Your task to perform on an android device: Do I have any events tomorrow? Image 0: 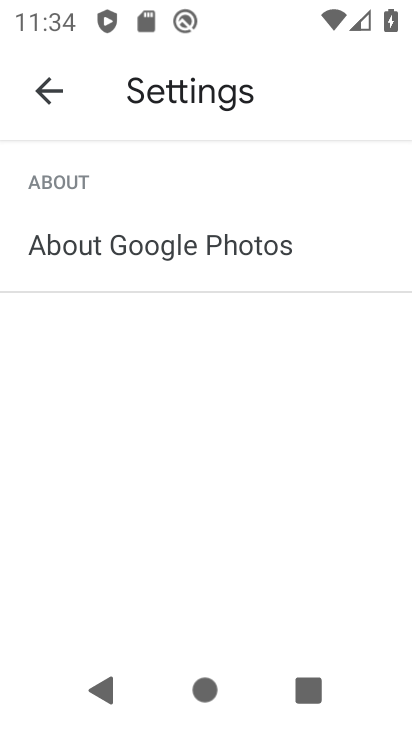
Step 0: press home button
Your task to perform on an android device: Do I have any events tomorrow? Image 1: 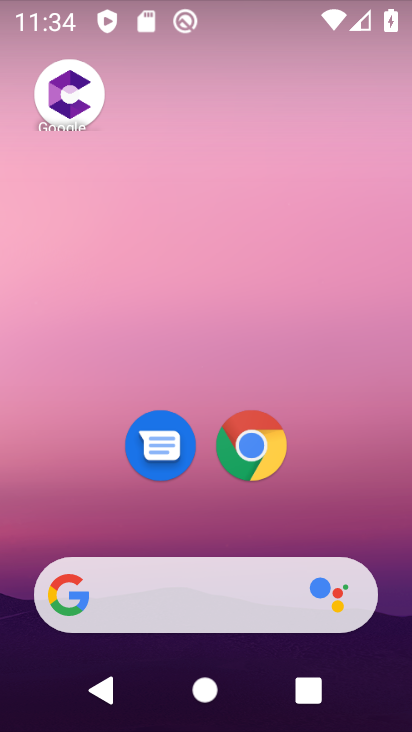
Step 1: drag from (211, 532) to (245, 3)
Your task to perform on an android device: Do I have any events tomorrow? Image 2: 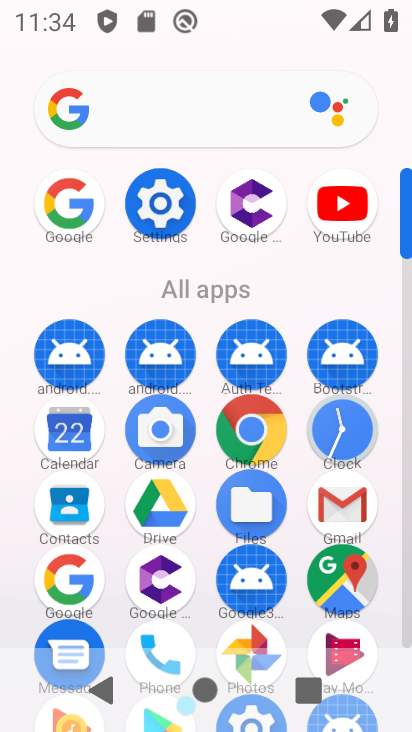
Step 2: click (66, 427)
Your task to perform on an android device: Do I have any events tomorrow? Image 3: 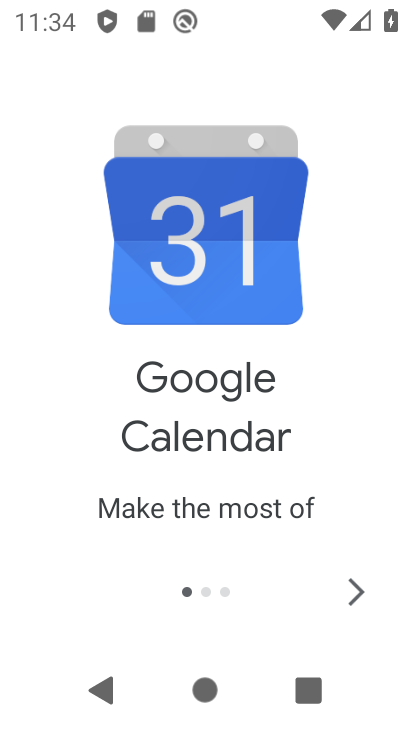
Step 3: click (347, 584)
Your task to perform on an android device: Do I have any events tomorrow? Image 4: 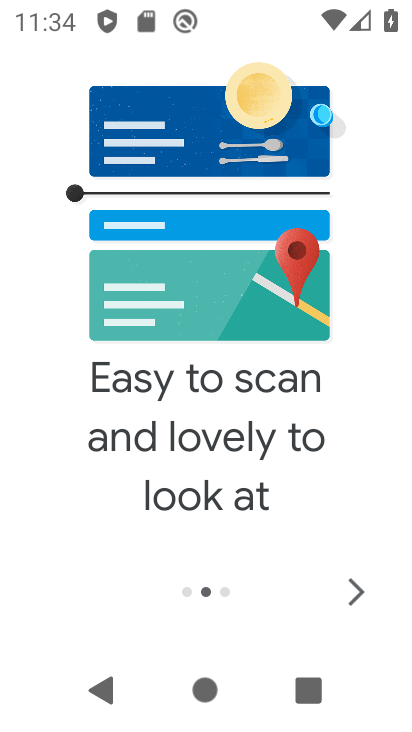
Step 4: click (347, 584)
Your task to perform on an android device: Do I have any events tomorrow? Image 5: 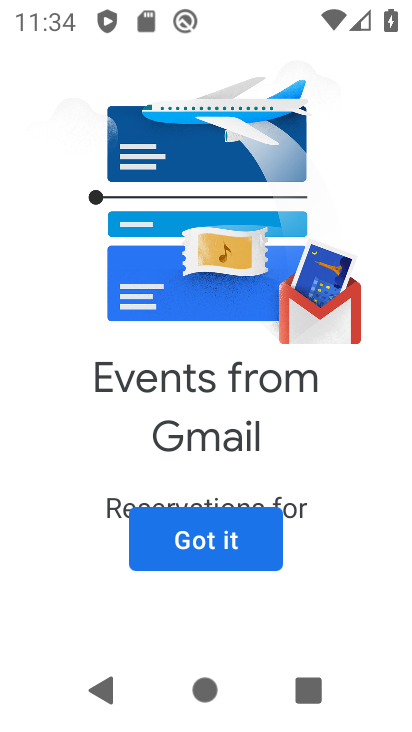
Step 5: click (209, 530)
Your task to perform on an android device: Do I have any events tomorrow? Image 6: 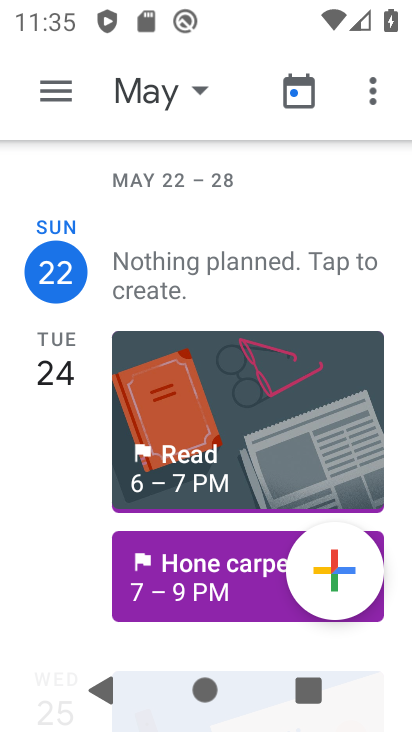
Step 6: click (204, 88)
Your task to perform on an android device: Do I have any events tomorrow? Image 7: 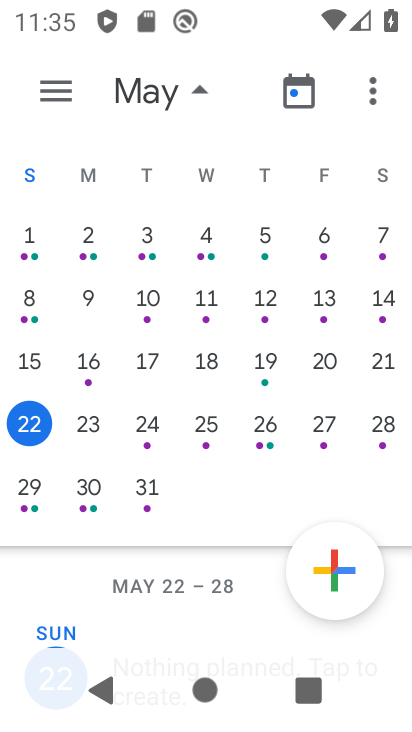
Step 7: click (95, 420)
Your task to perform on an android device: Do I have any events tomorrow? Image 8: 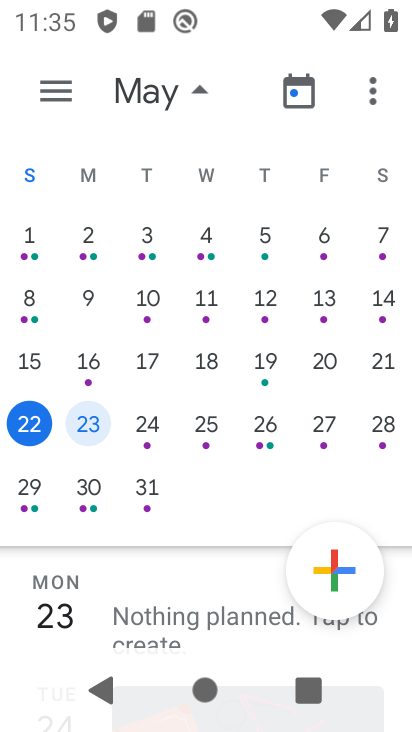
Step 8: click (197, 92)
Your task to perform on an android device: Do I have any events tomorrow? Image 9: 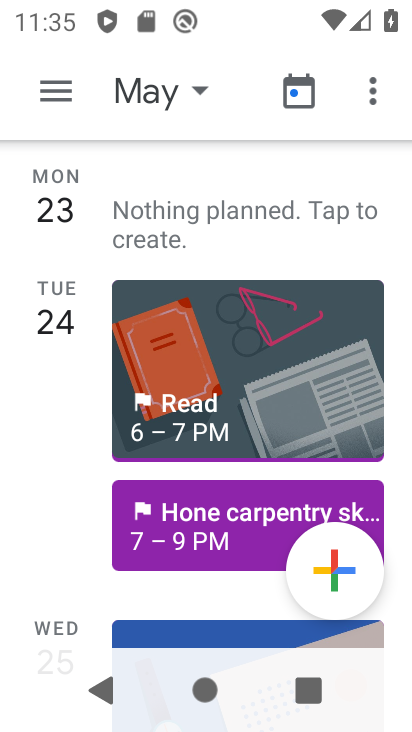
Step 9: click (78, 232)
Your task to perform on an android device: Do I have any events tomorrow? Image 10: 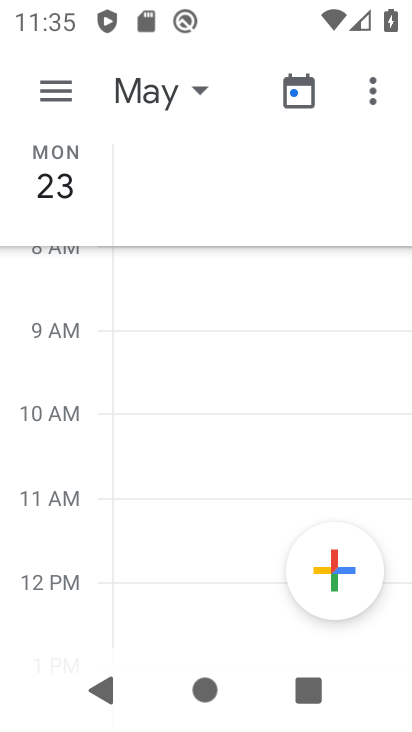
Step 10: task complete